Your task to perform on an android device: change the clock display to analog Image 0: 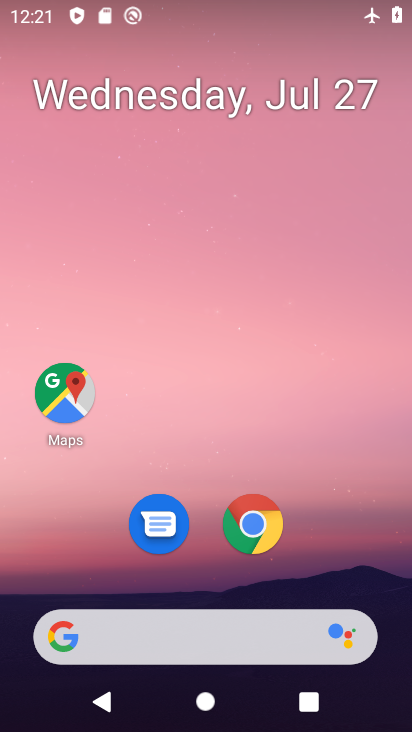
Step 0: drag from (306, 542) to (344, 97)
Your task to perform on an android device: change the clock display to analog Image 1: 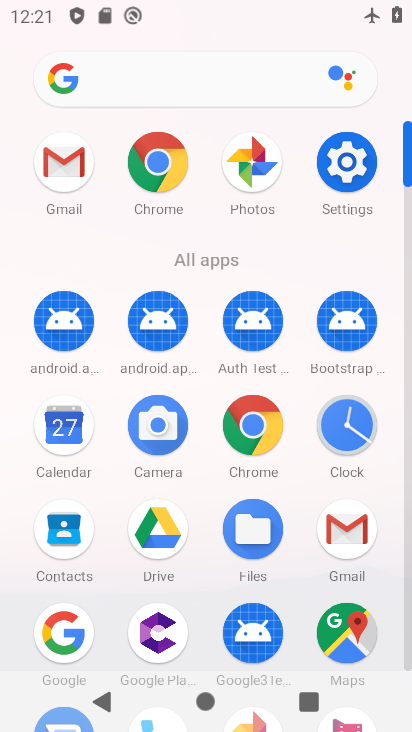
Step 1: click (352, 436)
Your task to perform on an android device: change the clock display to analog Image 2: 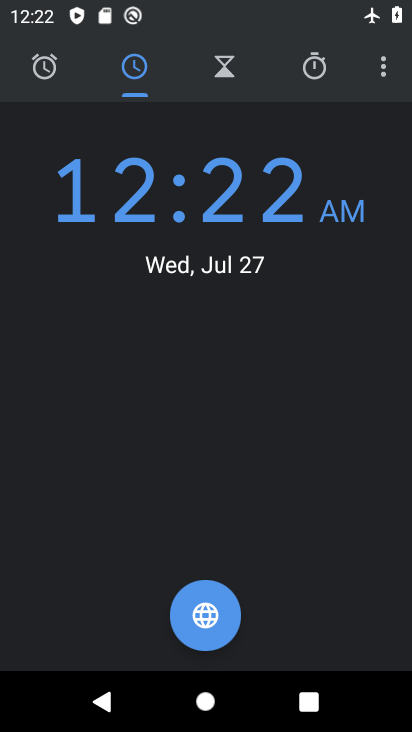
Step 2: click (382, 75)
Your task to perform on an android device: change the clock display to analog Image 3: 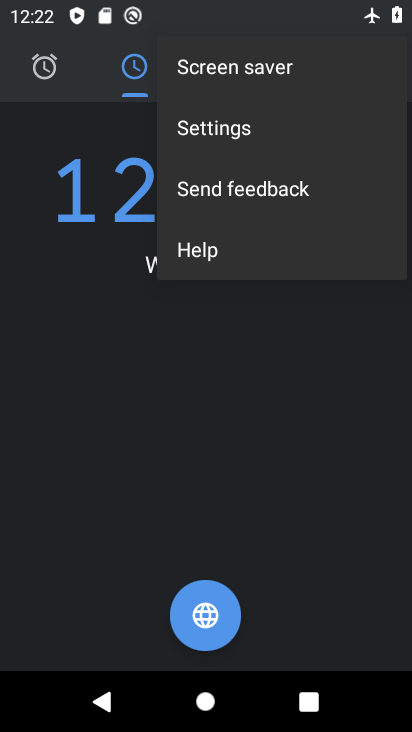
Step 3: click (248, 130)
Your task to perform on an android device: change the clock display to analog Image 4: 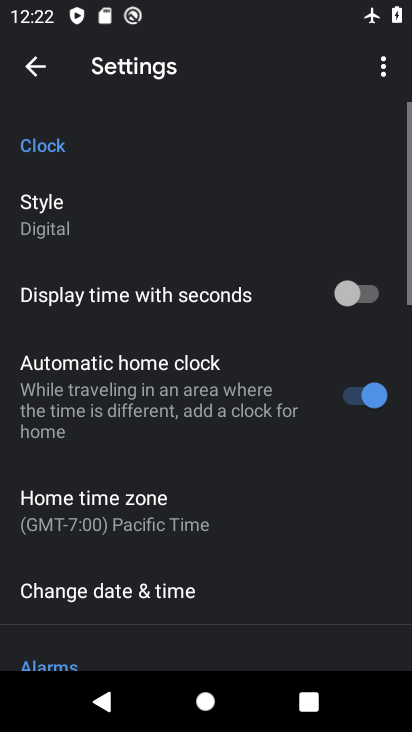
Step 4: click (89, 210)
Your task to perform on an android device: change the clock display to analog Image 5: 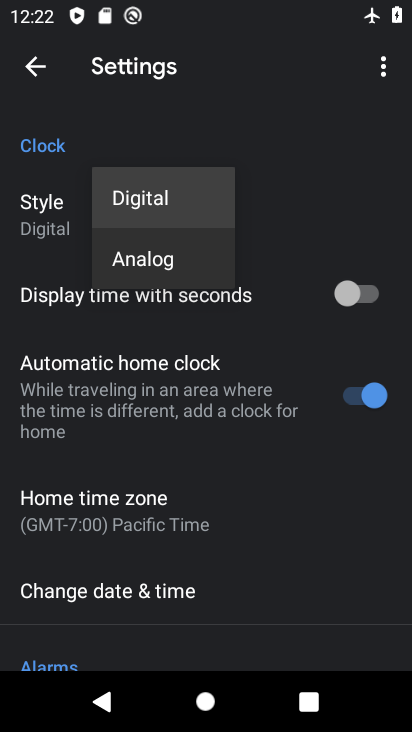
Step 5: click (123, 254)
Your task to perform on an android device: change the clock display to analog Image 6: 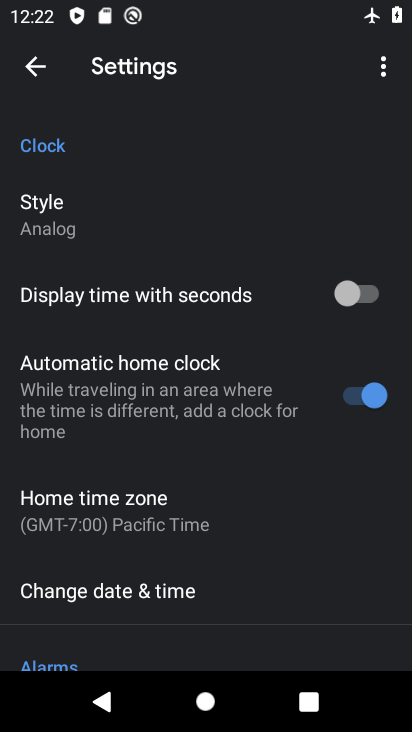
Step 6: click (33, 67)
Your task to perform on an android device: change the clock display to analog Image 7: 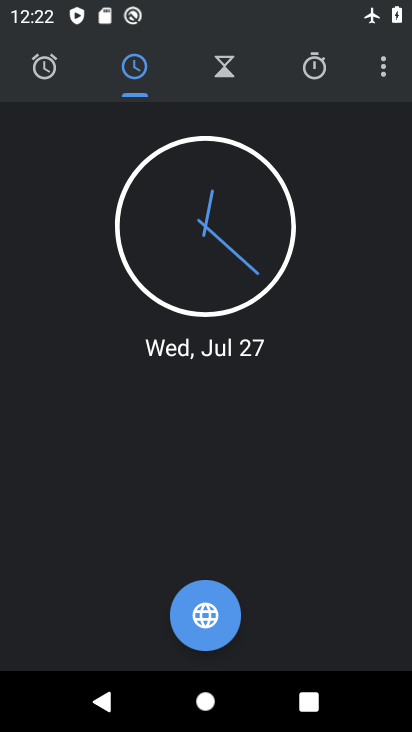
Step 7: task complete